Your task to perform on an android device: Go to Android settings Image 0: 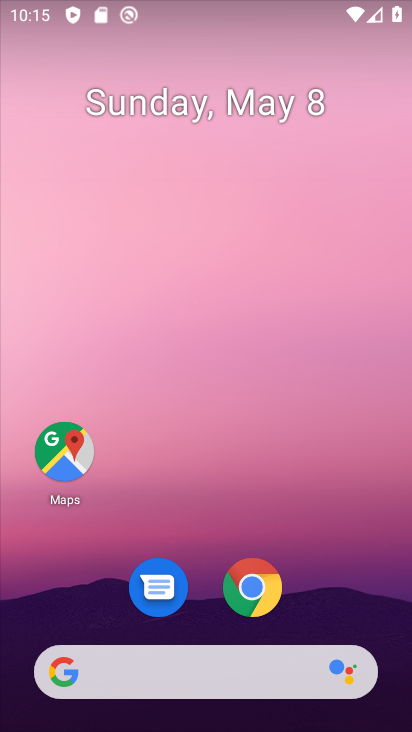
Step 0: drag from (337, 559) to (259, 154)
Your task to perform on an android device: Go to Android settings Image 1: 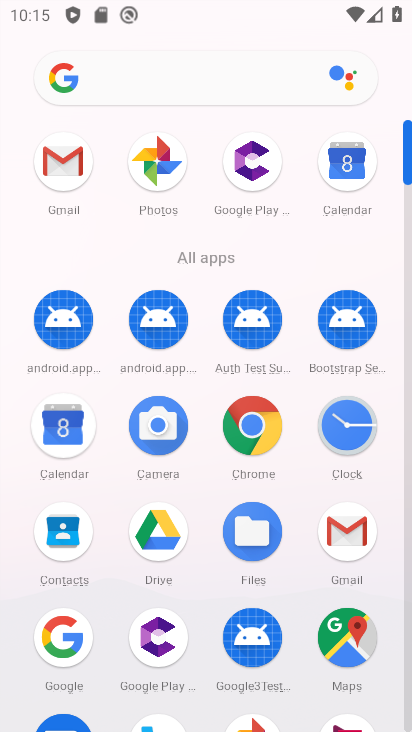
Step 1: drag from (313, 538) to (321, 223)
Your task to perform on an android device: Go to Android settings Image 2: 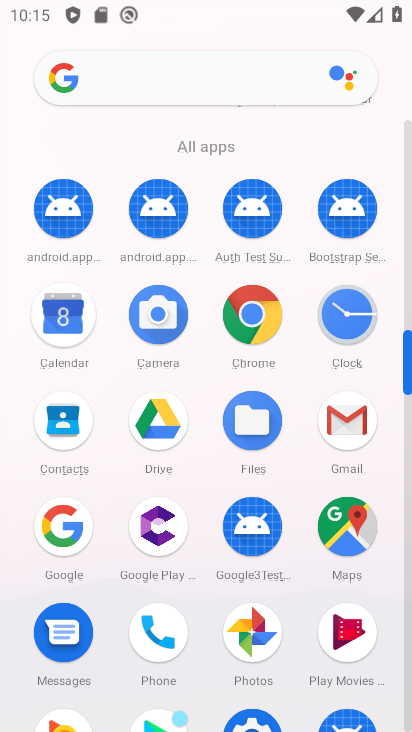
Step 2: drag from (308, 606) to (304, 219)
Your task to perform on an android device: Go to Android settings Image 3: 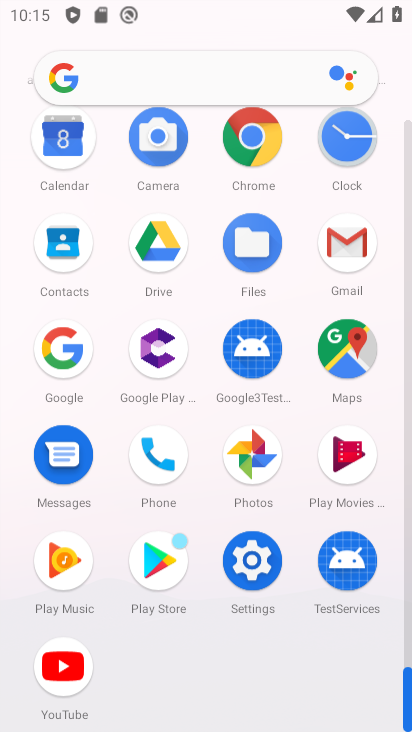
Step 3: drag from (318, 632) to (273, 136)
Your task to perform on an android device: Go to Android settings Image 4: 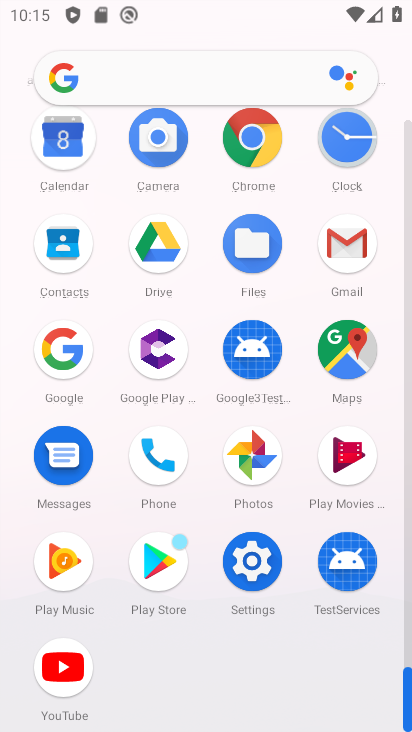
Step 4: click (245, 565)
Your task to perform on an android device: Go to Android settings Image 5: 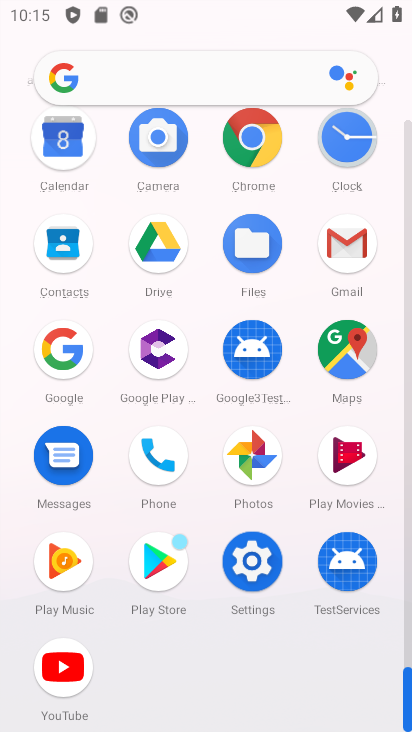
Step 5: click (260, 574)
Your task to perform on an android device: Go to Android settings Image 6: 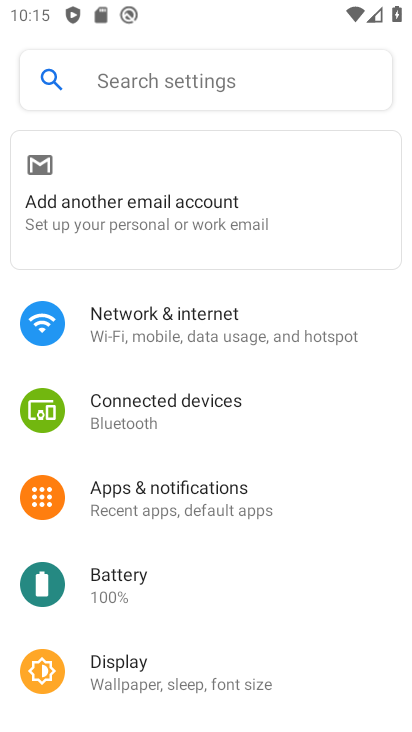
Step 6: drag from (181, 536) to (181, 183)
Your task to perform on an android device: Go to Android settings Image 7: 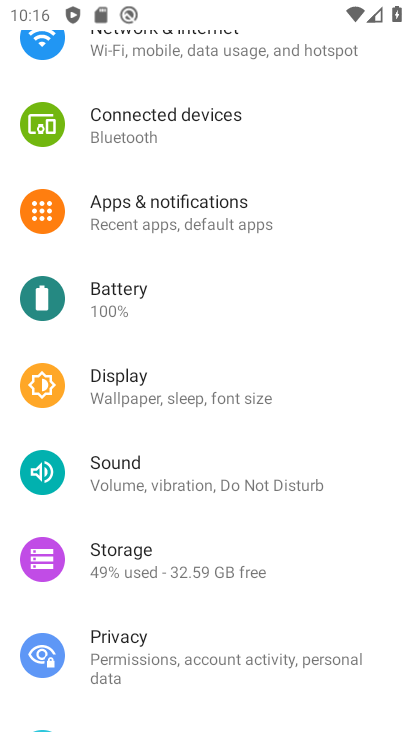
Step 7: drag from (137, 516) to (130, 250)
Your task to perform on an android device: Go to Android settings Image 8: 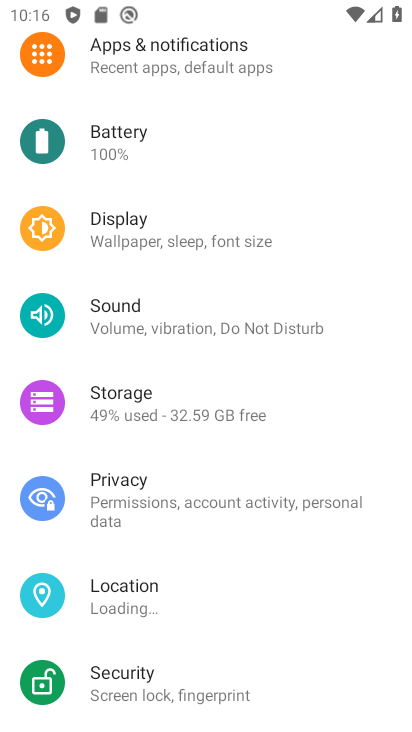
Step 8: drag from (159, 514) to (134, 192)
Your task to perform on an android device: Go to Android settings Image 9: 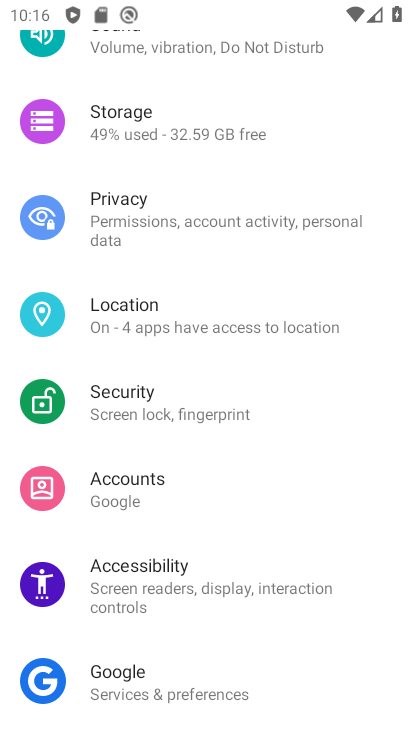
Step 9: drag from (204, 602) to (163, 342)
Your task to perform on an android device: Go to Android settings Image 10: 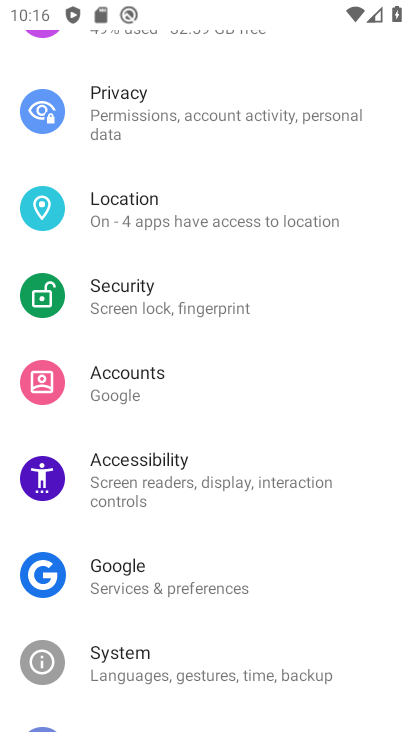
Step 10: drag from (161, 589) to (171, 173)
Your task to perform on an android device: Go to Android settings Image 11: 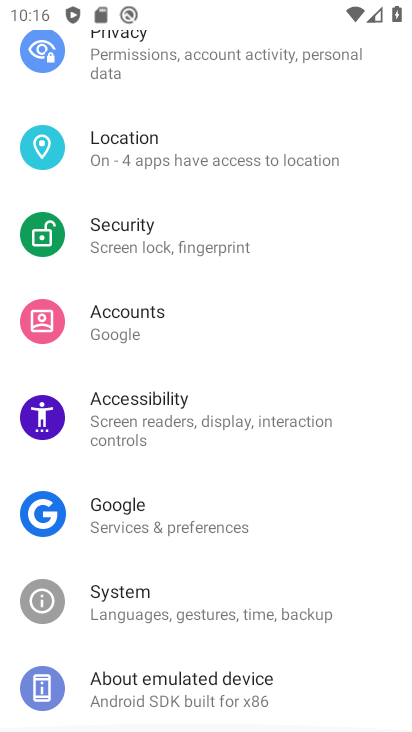
Step 11: drag from (174, 661) to (122, 21)
Your task to perform on an android device: Go to Android settings Image 12: 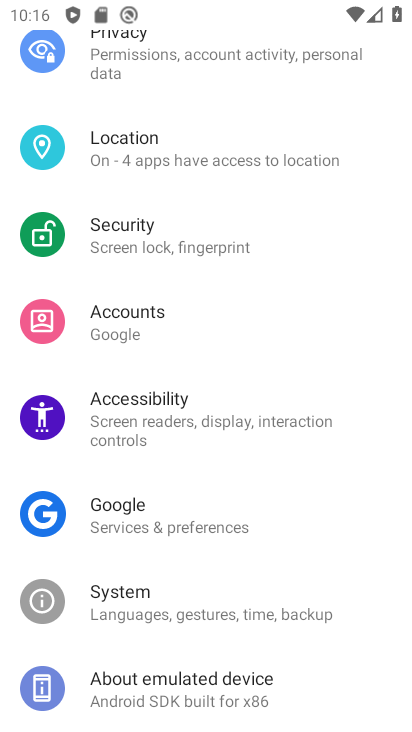
Step 12: click (167, 688)
Your task to perform on an android device: Go to Android settings Image 13: 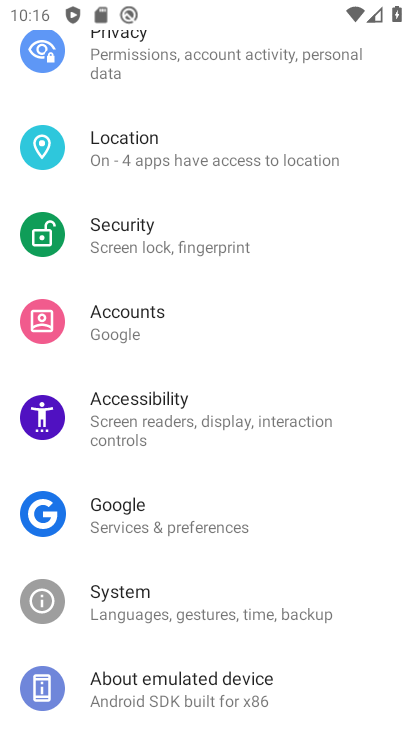
Step 13: click (168, 707)
Your task to perform on an android device: Go to Android settings Image 14: 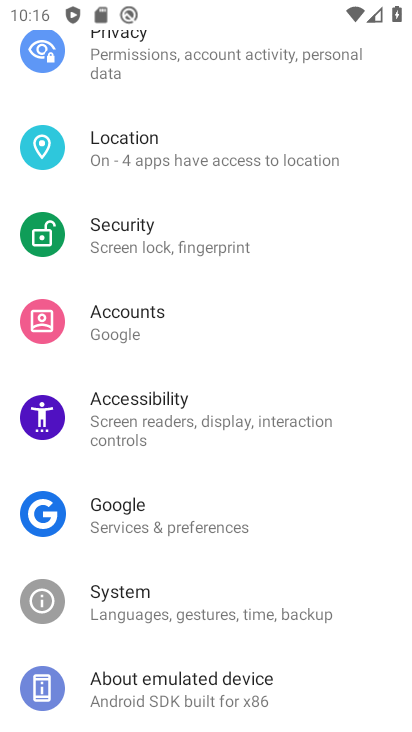
Step 14: click (168, 707)
Your task to perform on an android device: Go to Android settings Image 15: 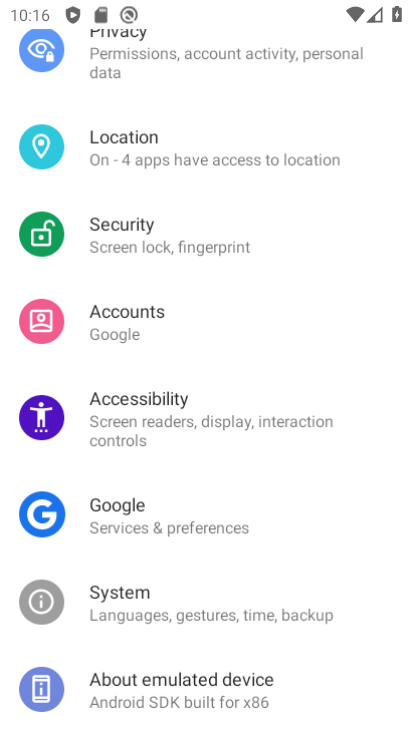
Step 15: click (167, 705)
Your task to perform on an android device: Go to Android settings Image 16: 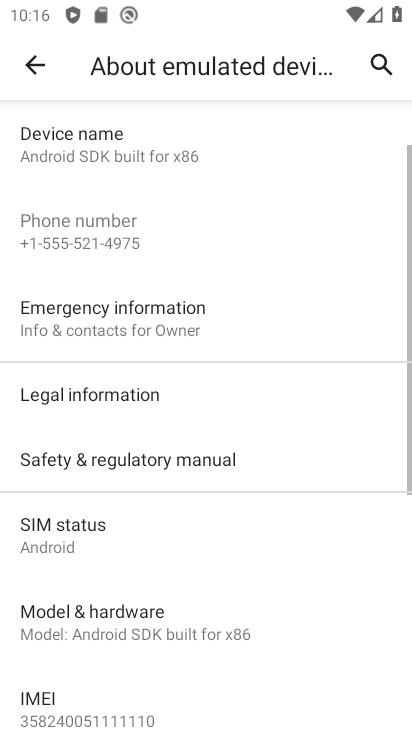
Step 16: task complete